Your task to perform on an android device: Do I have any events tomorrow? Image 0: 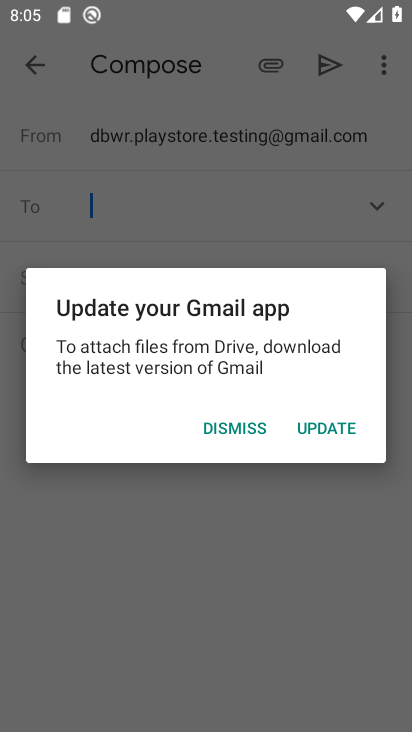
Step 0: press home button
Your task to perform on an android device: Do I have any events tomorrow? Image 1: 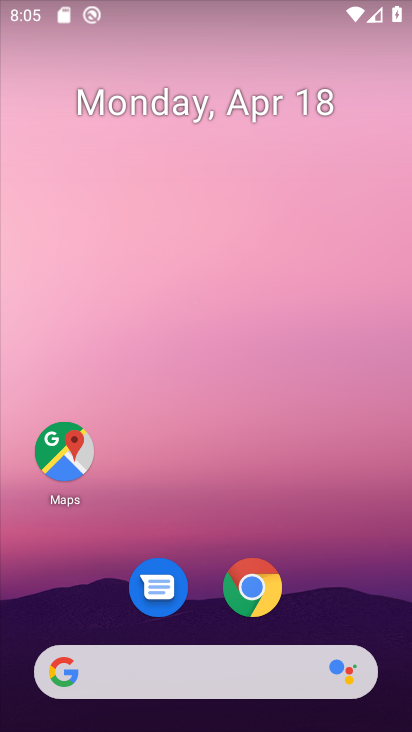
Step 1: click (204, 112)
Your task to perform on an android device: Do I have any events tomorrow? Image 2: 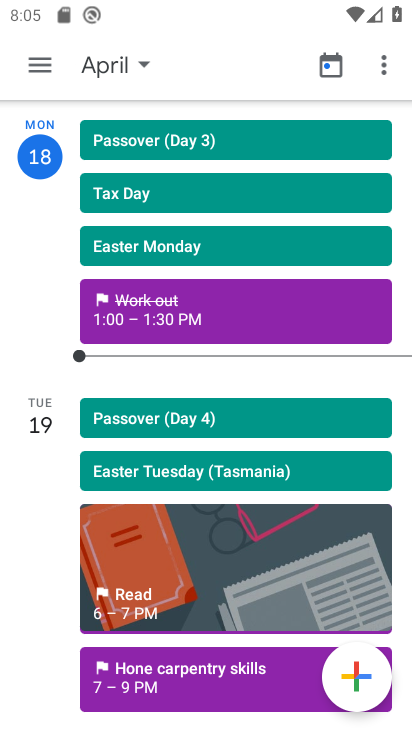
Step 2: click (126, 676)
Your task to perform on an android device: Do I have any events tomorrow? Image 3: 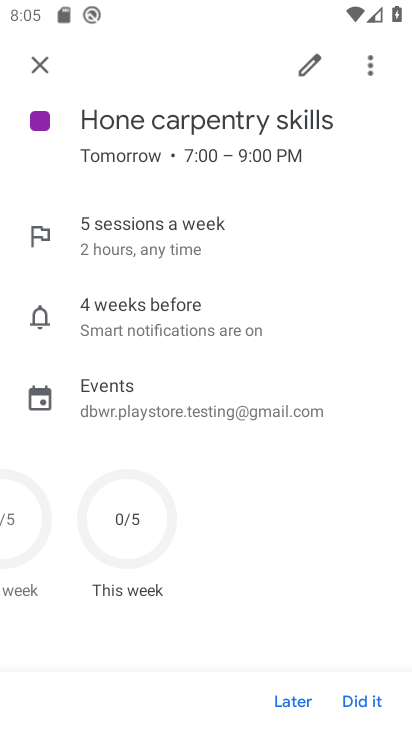
Step 3: task complete